Your task to perform on an android device: Go to Reddit.com Image 0: 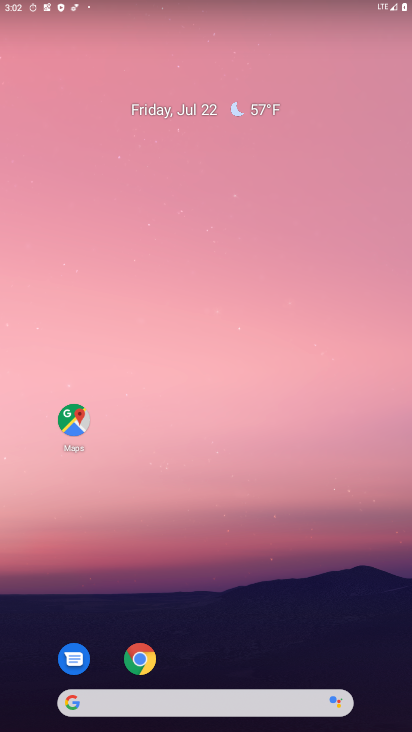
Step 0: click (141, 659)
Your task to perform on an android device: Go to Reddit.com Image 1: 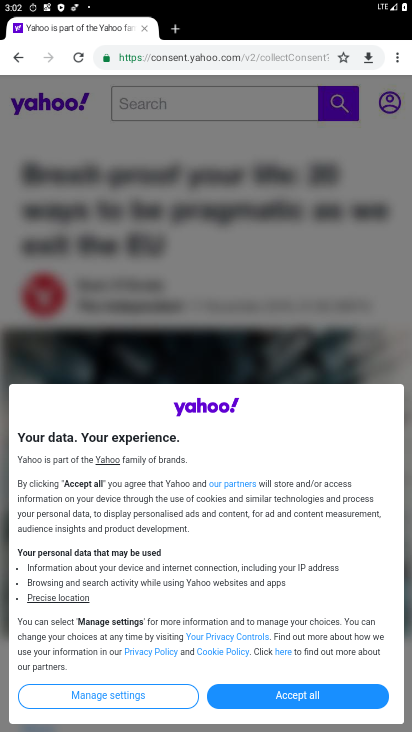
Step 1: click (161, 57)
Your task to perform on an android device: Go to Reddit.com Image 2: 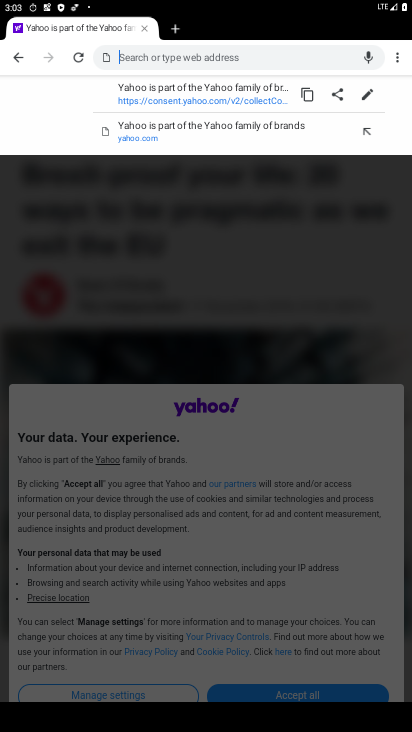
Step 2: type "reddit.com"
Your task to perform on an android device: Go to Reddit.com Image 3: 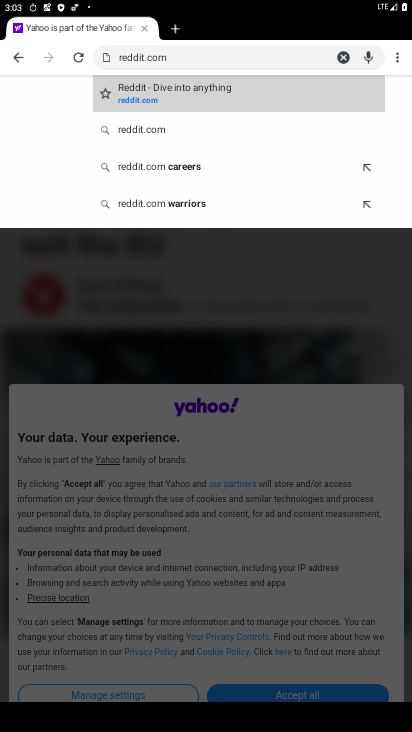
Step 3: click (194, 91)
Your task to perform on an android device: Go to Reddit.com Image 4: 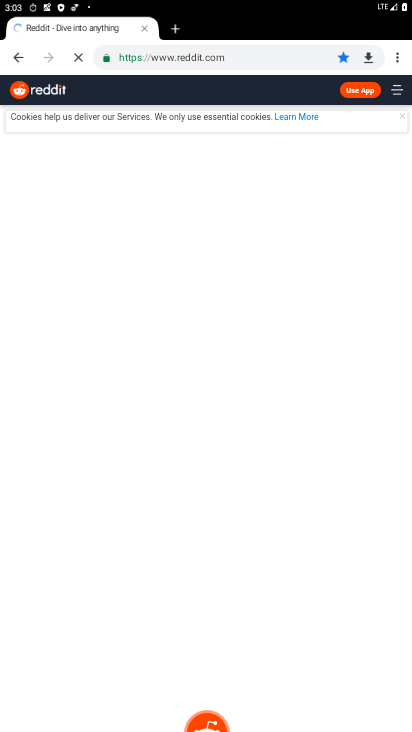
Step 4: task complete